Your task to perform on an android device: Is it going to rain tomorrow? Image 0: 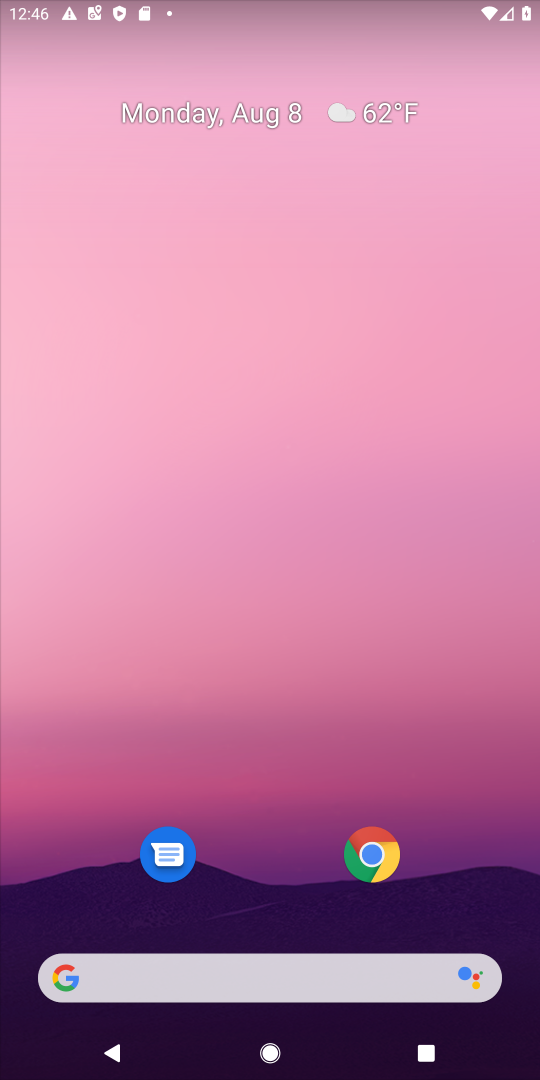
Step 0: press home button
Your task to perform on an android device: Is it going to rain tomorrow? Image 1: 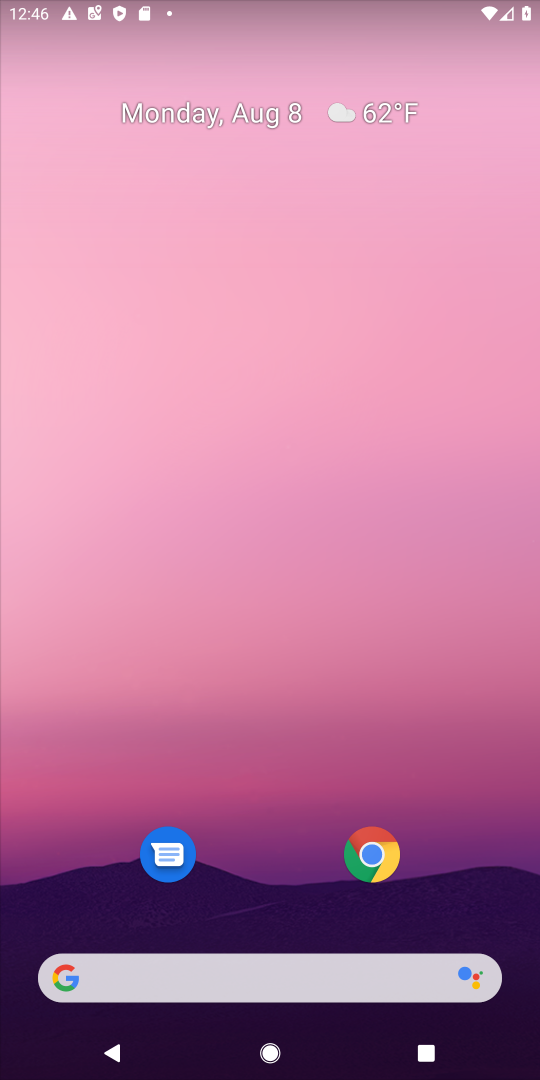
Step 1: drag from (273, 888) to (258, 125)
Your task to perform on an android device: Is it going to rain tomorrow? Image 2: 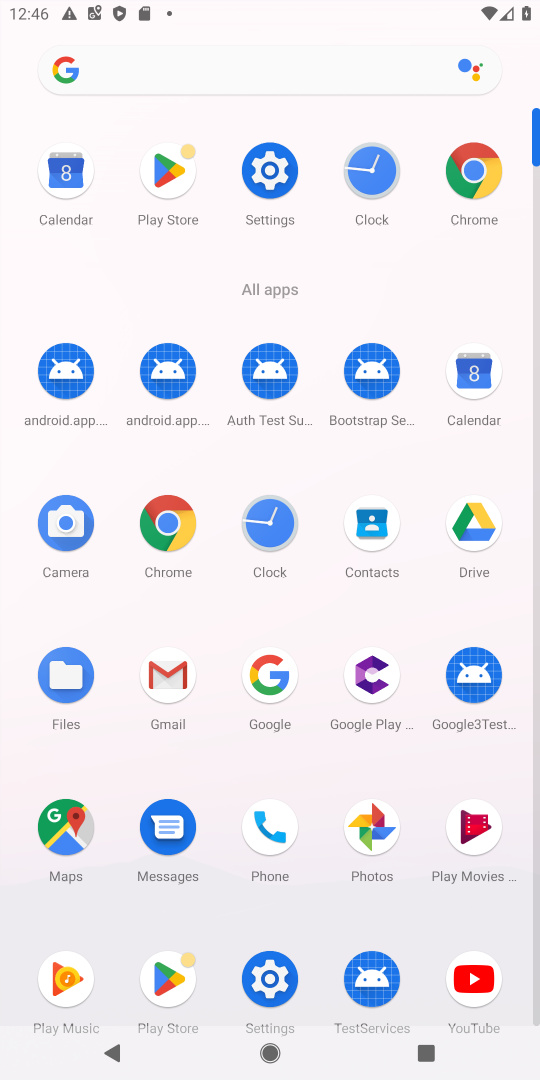
Step 2: click (283, 667)
Your task to perform on an android device: Is it going to rain tomorrow? Image 3: 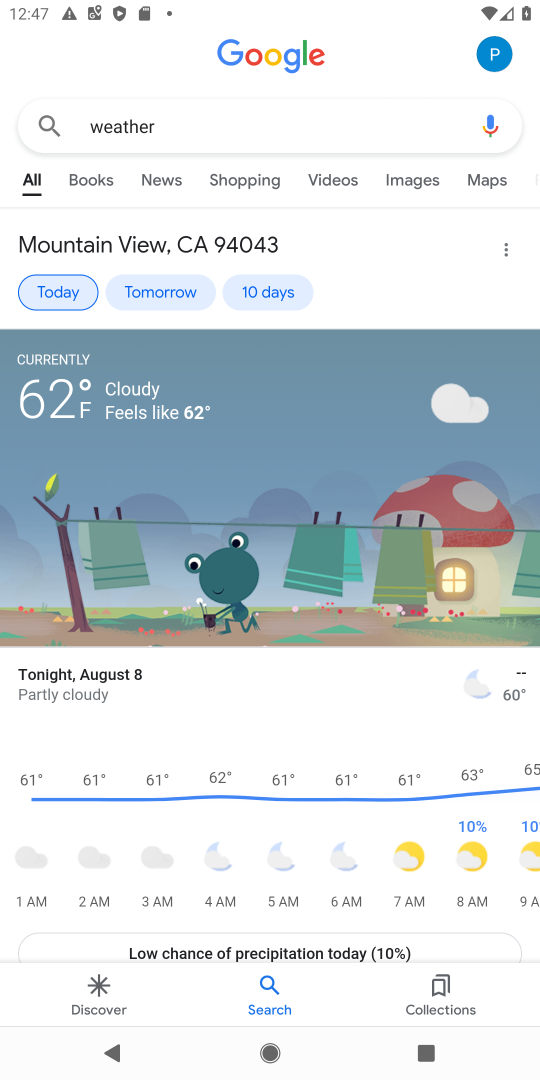
Step 3: click (337, 126)
Your task to perform on an android device: Is it going to rain tomorrow? Image 4: 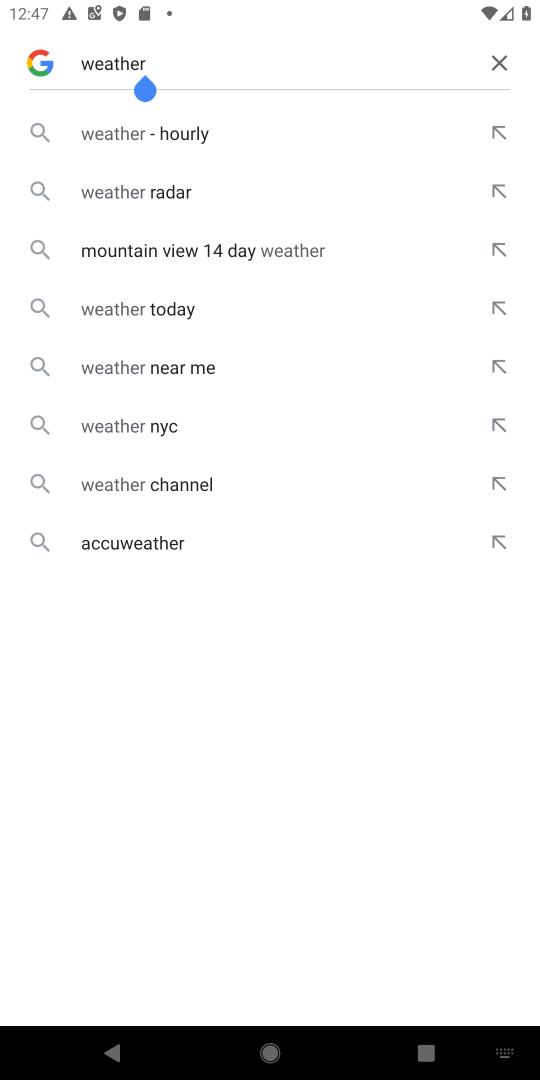
Step 4: click (486, 47)
Your task to perform on an android device: Is it going to rain tomorrow? Image 5: 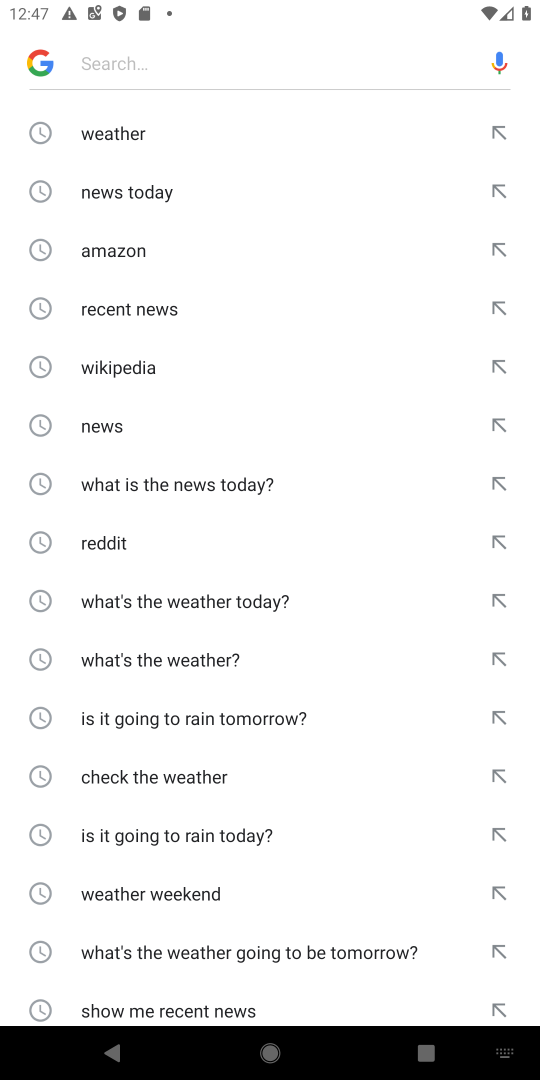
Step 5: type "Is it going to rain tomorrow?"
Your task to perform on an android device: Is it going to rain tomorrow? Image 6: 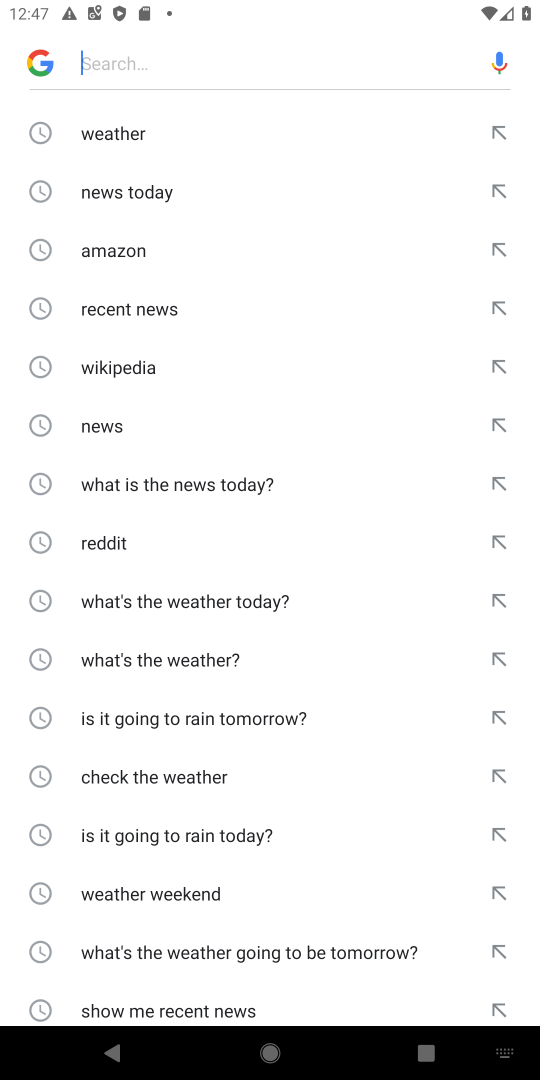
Step 6: click (103, 62)
Your task to perform on an android device: Is it going to rain tomorrow? Image 7: 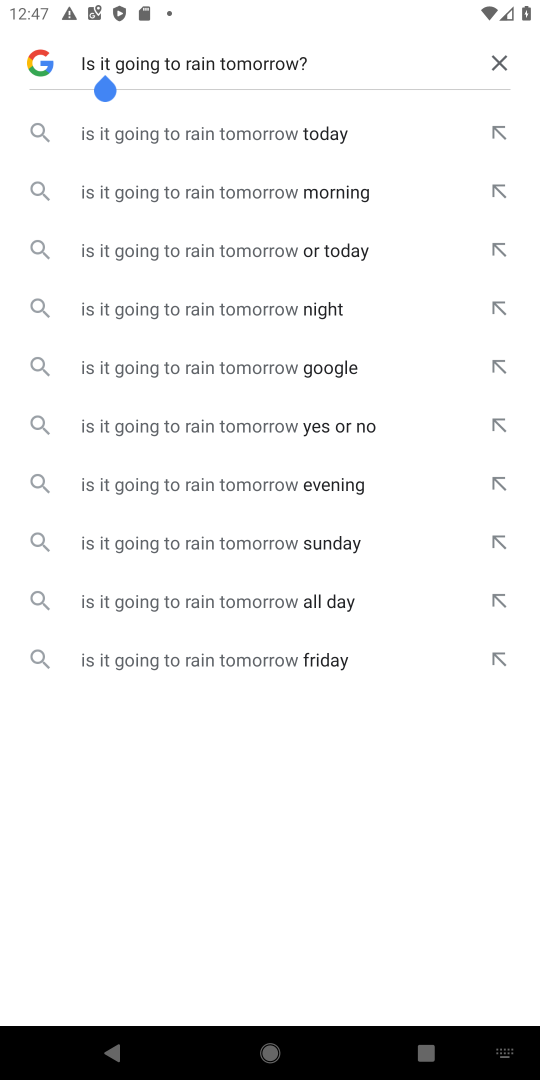
Step 7: task complete